Your task to perform on an android device: Go to display settings Image 0: 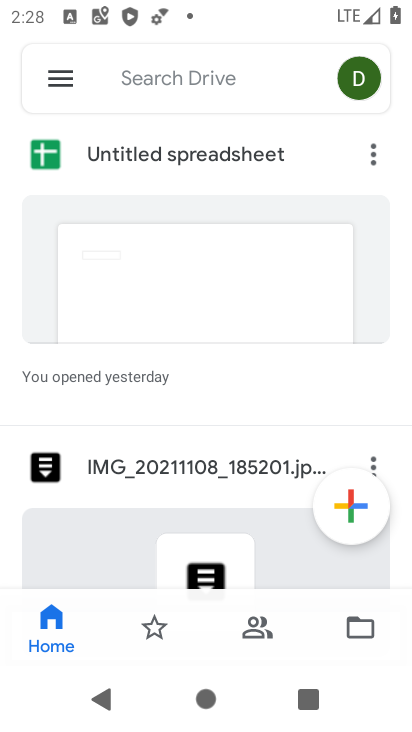
Step 0: press home button
Your task to perform on an android device: Go to display settings Image 1: 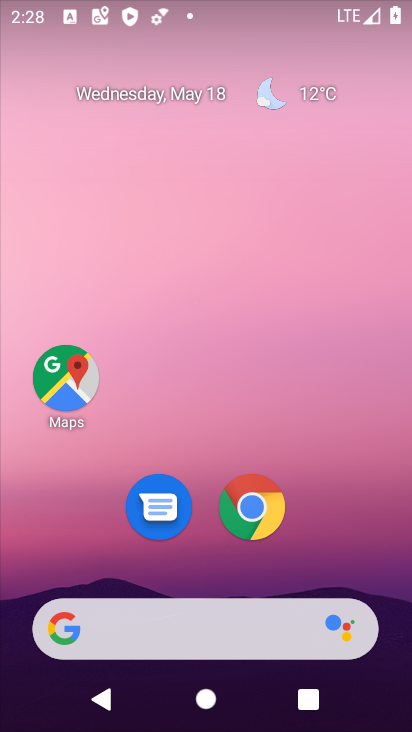
Step 1: drag from (402, 645) to (357, 226)
Your task to perform on an android device: Go to display settings Image 2: 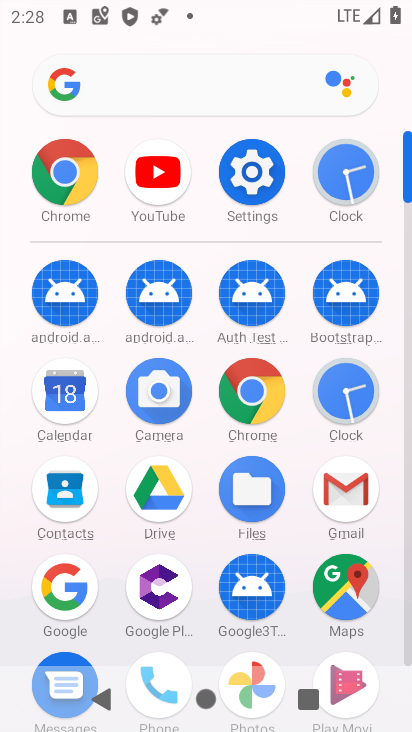
Step 2: click (408, 645)
Your task to perform on an android device: Go to display settings Image 3: 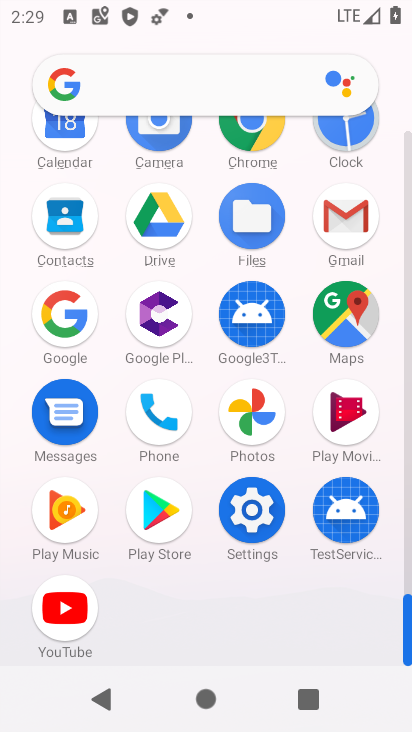
Step 3: click (248, 507)
Your task to perform on an android device: Go to display settings Image 4: 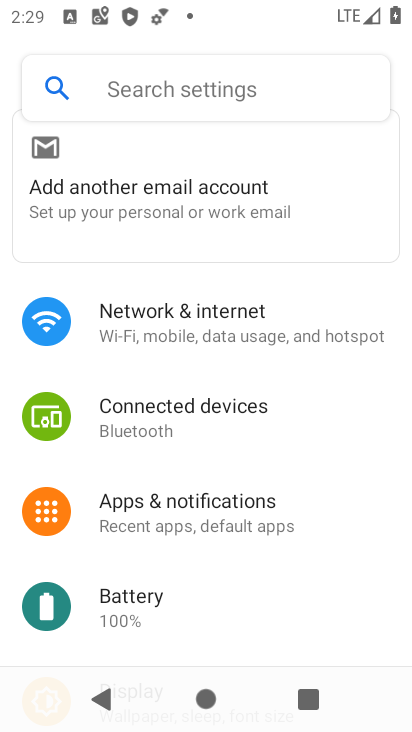
Step 4: drag from (286, 618) to (306, 177)
Your task to perform on an android device: Go to display settings Image 5: 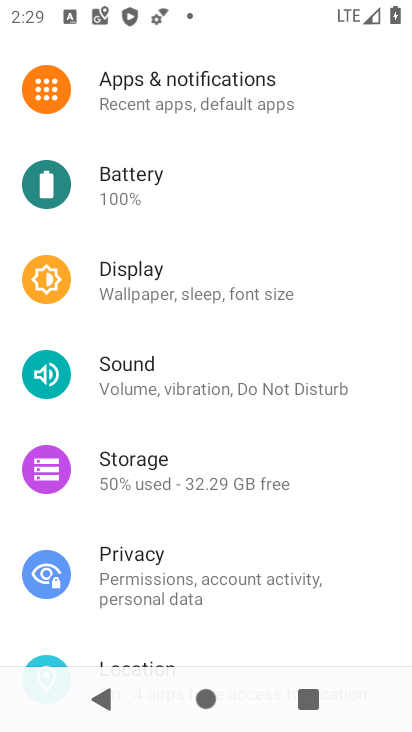
Step 5: click (135, 275)
Your task to perform on an android device: Go to display settings Image 6: 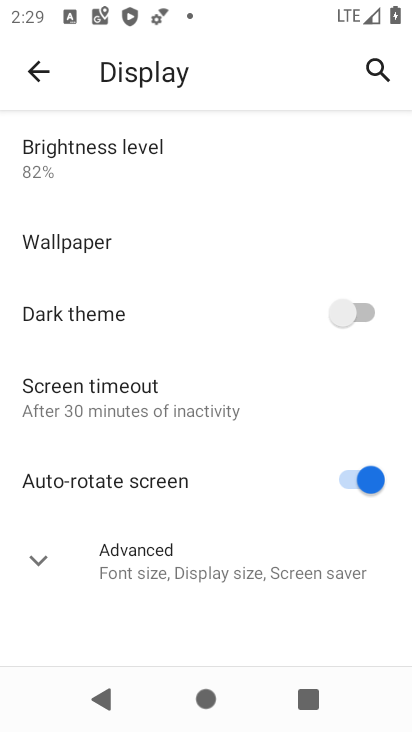
Step 6: click (38, 559)
Your task to perform on an android device: Go to display settings Image 7: 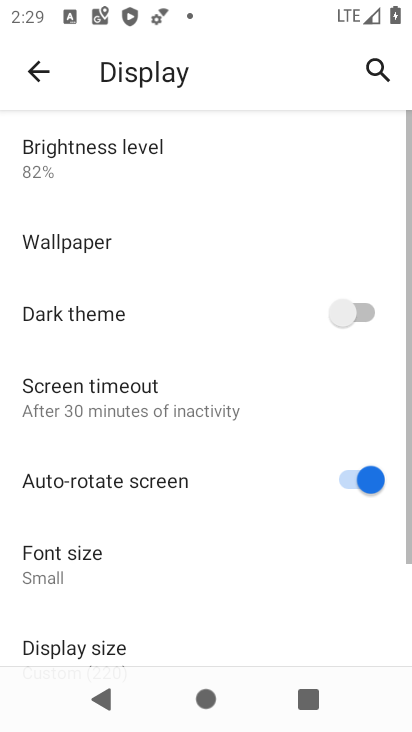
Step 7: task complete